Your task to perform on an android device: check the backup settings in the google photos Image 0: 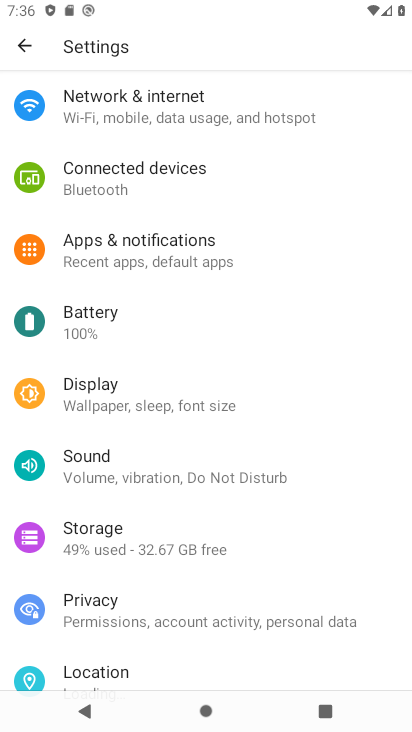
Step 0: press home button
Your task to perform on an android device: check the backup settings in the google photos Image 1: 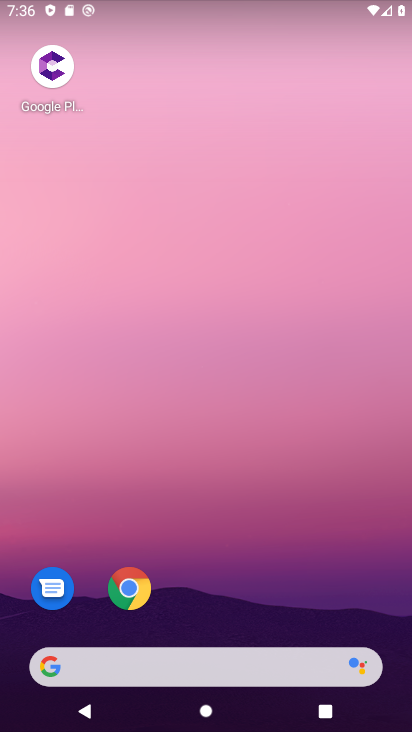
Step 1: drag from (228, 615) to (328, 86)
Your task to perform on an android device: check the backup settings in the google photos Image 2: 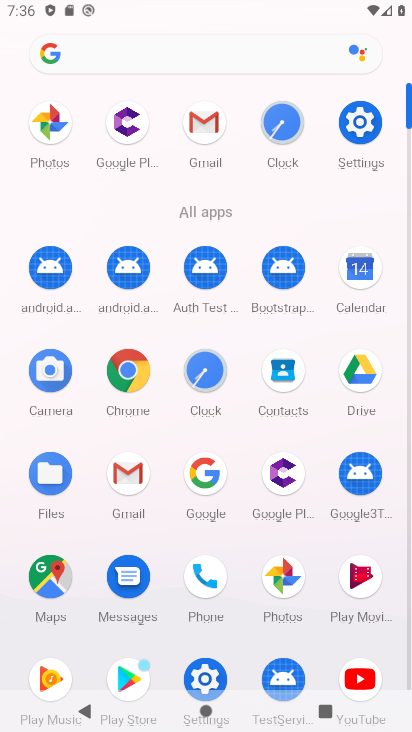
Step 2: click (288, 565)
Your task to perform on an android device: check the backup settings in the google photos Image 3: 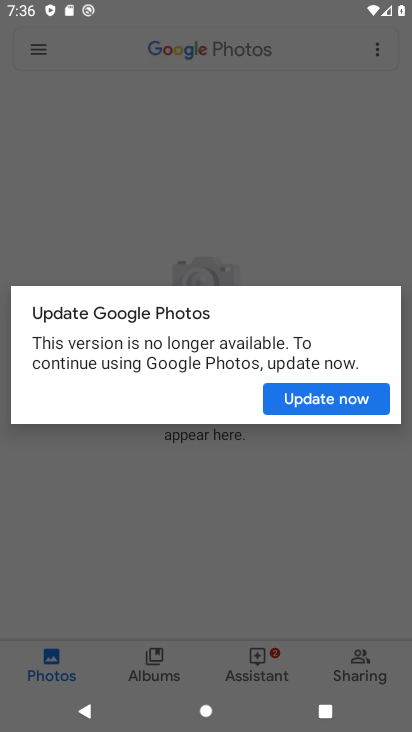
Step 3: click (297, 413)
Your task to perform on an android device: check the backup settings in the google photos Image 4: 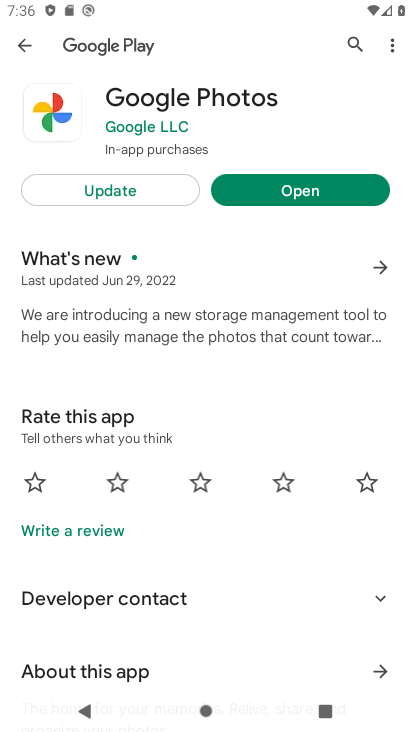
Step 4: click (85, 184)
Your task to perform on an android device: check the backup settings in the google photos Image 5: 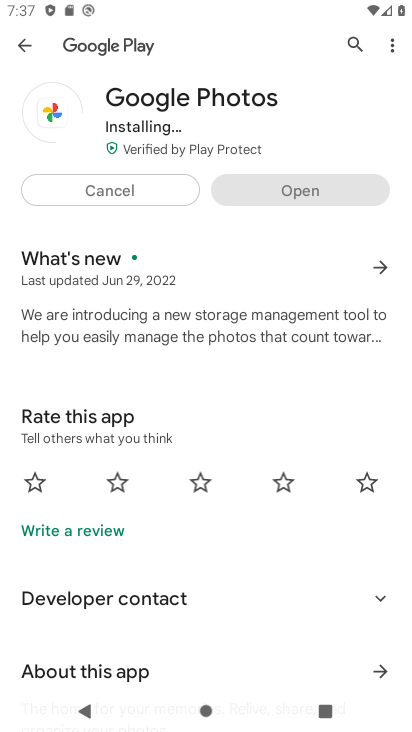
Step 5: click (79, 189)
Your task to perform on an android device: check the backup settings in the google photos Image 6: 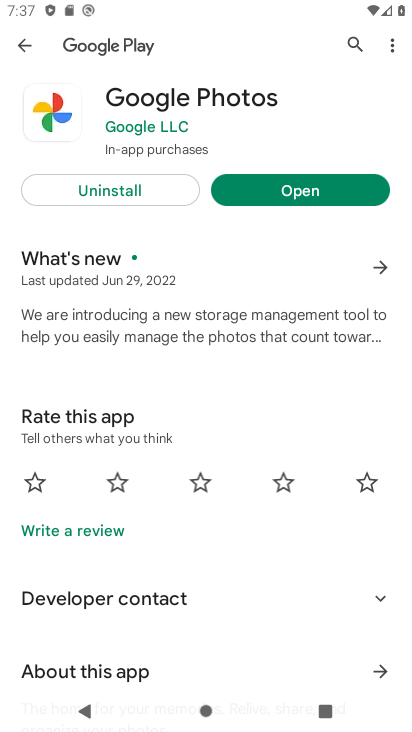
Step 6: click (300, 190)
Your task to perform on an android device: check the backup settings in the google photos Image 7: 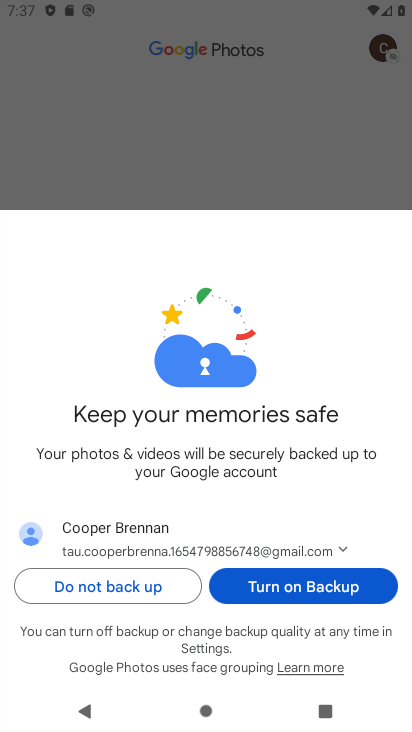
Step 7: click (116, 579)
Your task to perform on an android device: check the backup settings in the google photos Image 8: 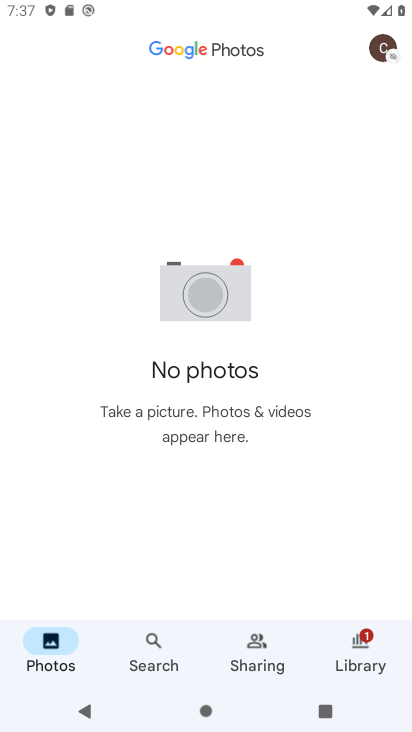
Step 8: click (379, 60)
Your task to perform on an android device: check the backup settings in the google photos Image 9: 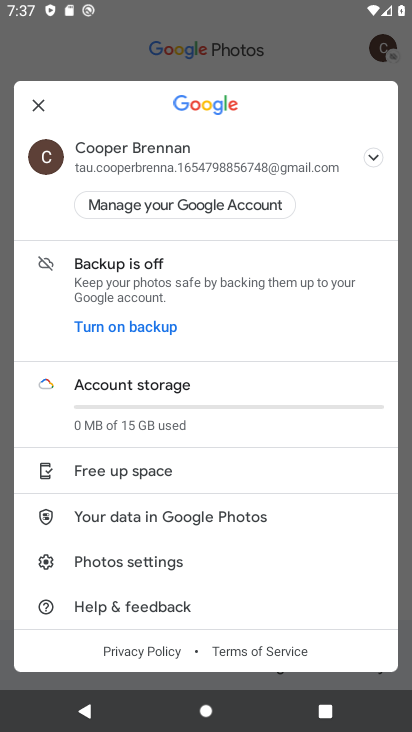
Step 9: click (166, 565)
Your task to perform on an android device: check the backup settings in the google photos Image 10: 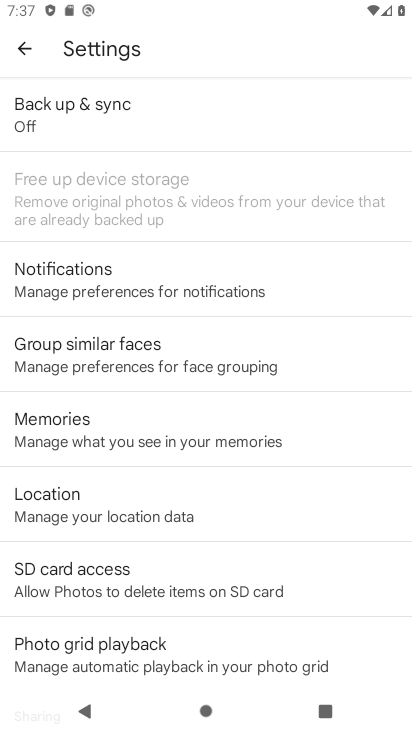
Step 10: click (211, 105)
Your task to perform on an android device: check the backup settings in the google photos Image 11: 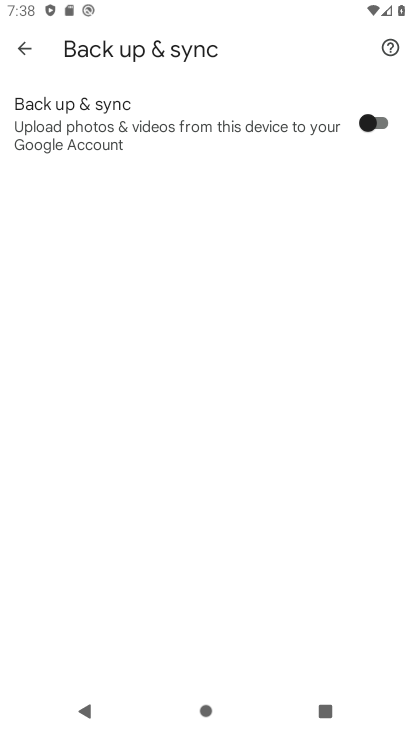
Step 11: task complete